Your task to perform on an android device: find snoozed emails in the gmail app Image 0: 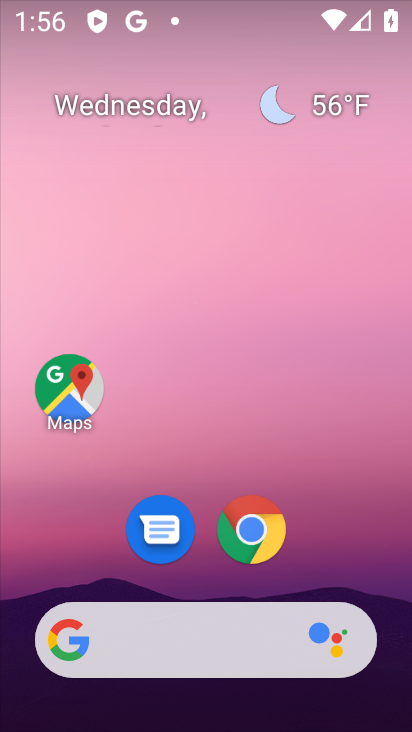
Step 0: drag from (349, 524) to (353, 100)
Your task to perform on an android device: find snoozed emails in the gmail app Image 1: 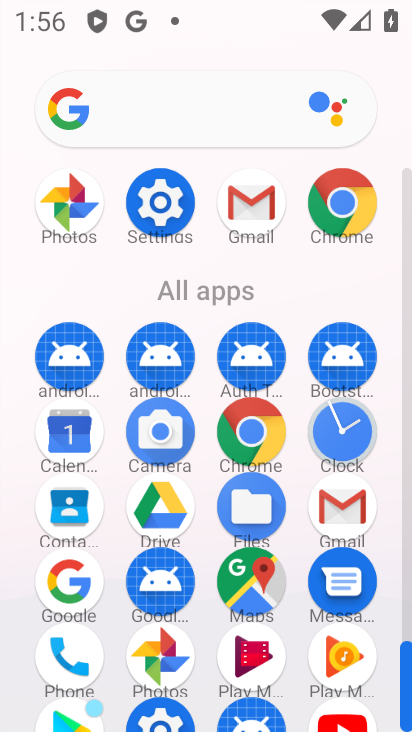
Step 1: click (335, 503)
Your task to perform on an android device: find snoozed emails in the gmail app Image 2: 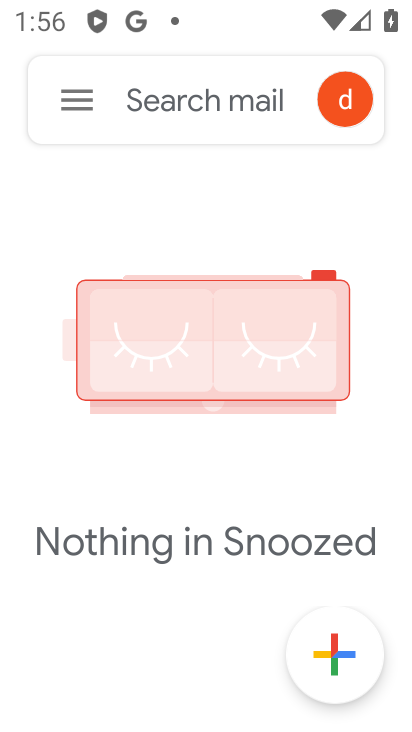
Step 2: task complete